Your task to perform on an android device: Go to Wikipedia Image 0: 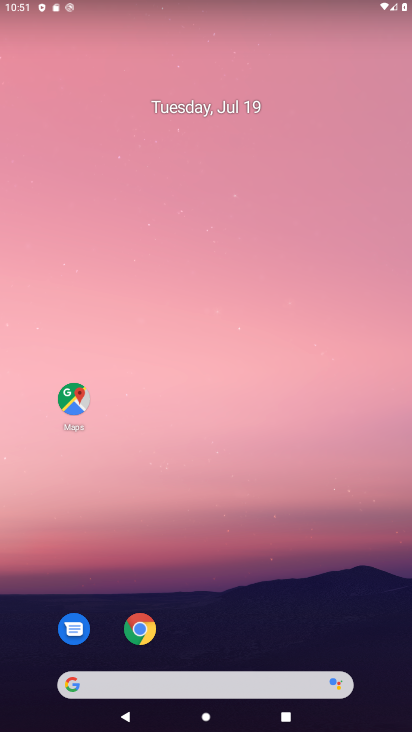
Step 0: click (136, 628)
Your task to perform on an android device: Go to Wikipedia Image 1: 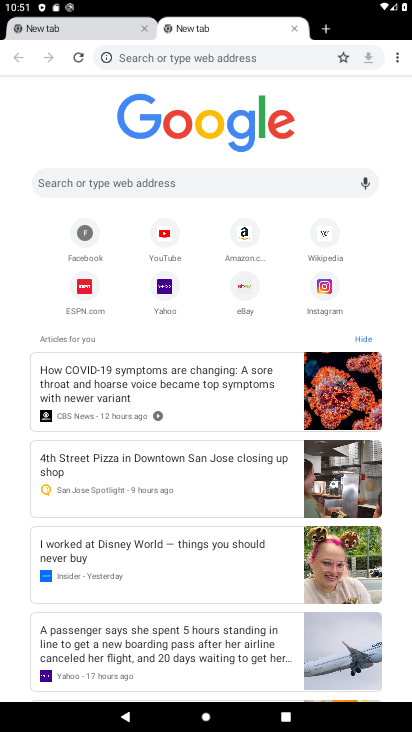
Step 1: click (196, 179)
Your task to perform on an android device: Go to Wikipedia Image 2: 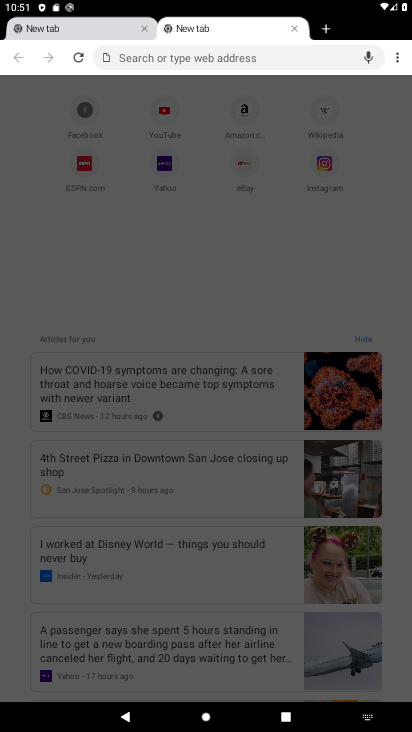
Step 2: type " Wikipedia"
Your task to perform on an android device: Go to Wikipedia Image 3: 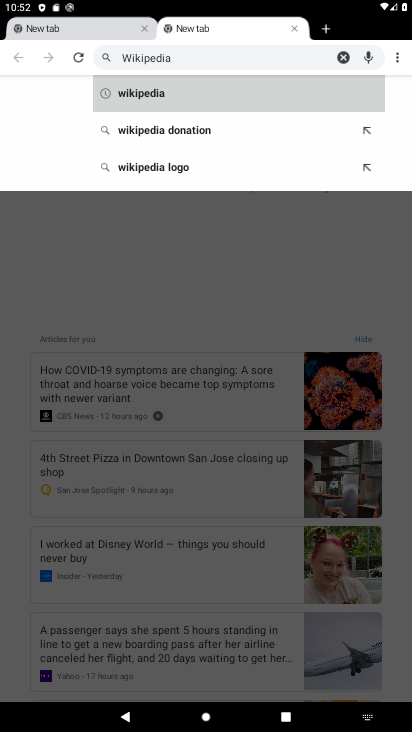
Step 3: click (176, 88)
Your task to perform on an android device: Go to Wikipedia Image 4: 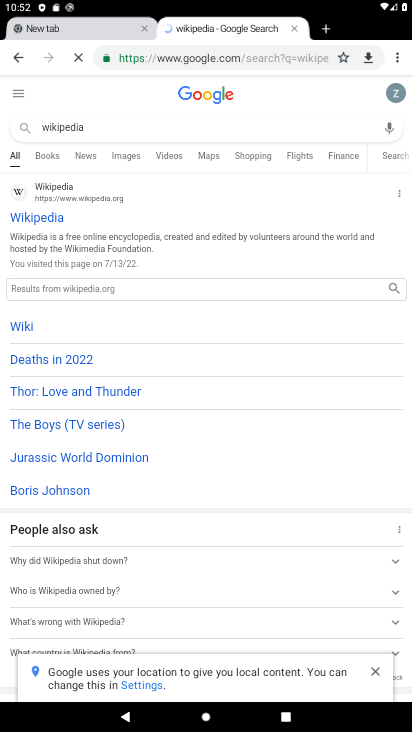
Step 4: click (53, 215)
Your task to perform on an android device: Go to Wikipedia Image 5: 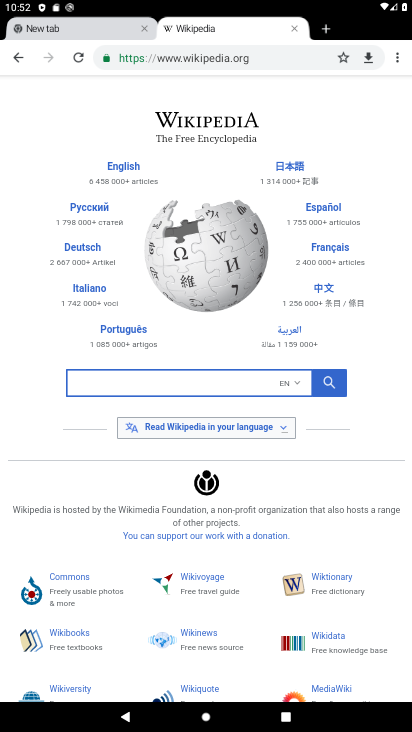
Step 5: task complete